Your task to perform on an android device: check the backup settings in the google photos Image 0: 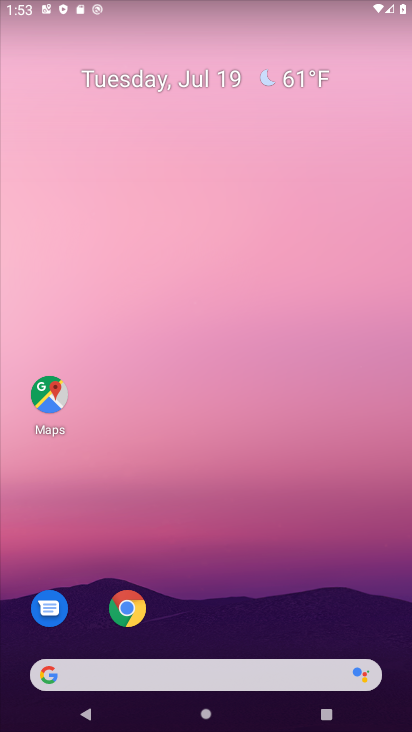
Step 0: drag from (275, 651) to (242, 88)
Your task to perform on an android device: check the backup settings in the google photos Image 1: 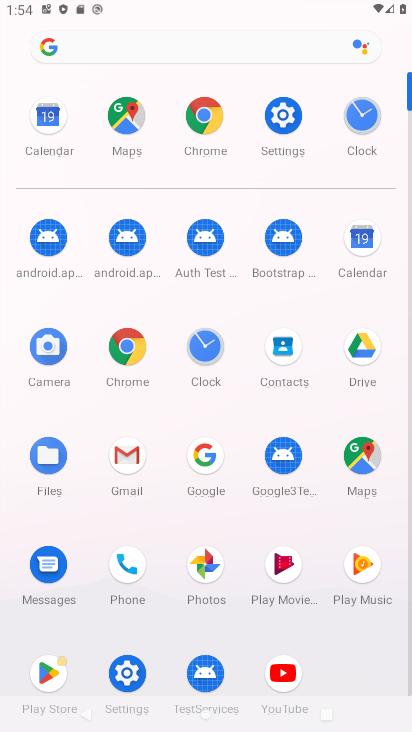
Step 1: click (208, 570)
Your task to perform on an android device: check the backup settings in the google photos Image 2: 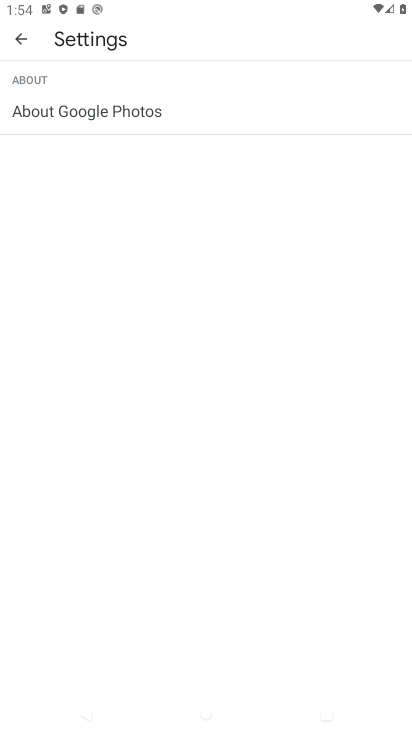
Step 2: click (18, 43)
Your task to perform on an android device: check the backup settings in the google photos Image 3: 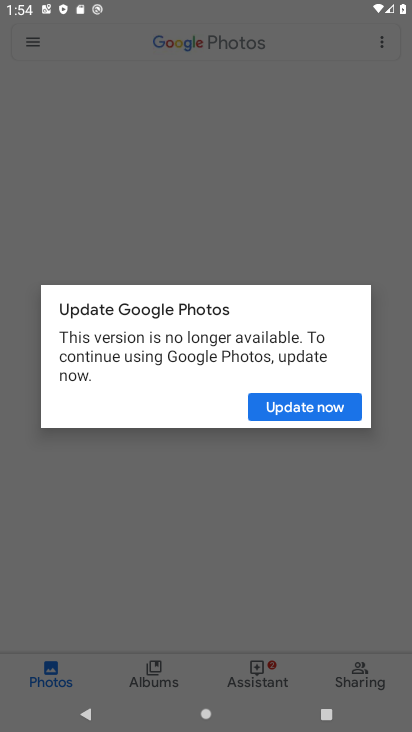
Step 3: click (305, 419)
Your task to perform on an android device: check the backup settings in the google photos Image 4: 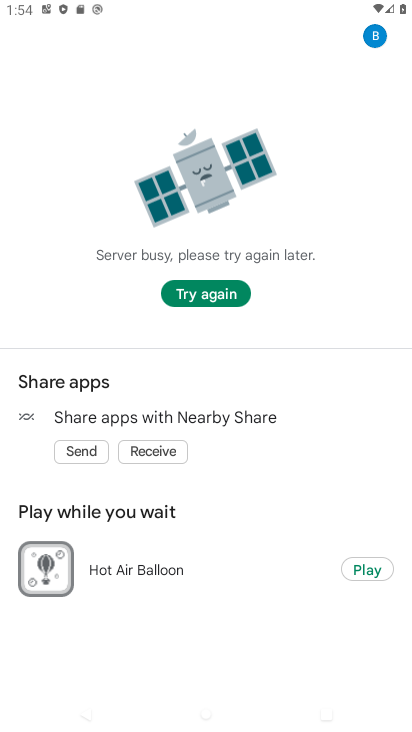
Step 4: press home button
Your task to perform on an android device: check the backup settings in the google photos Image 5: 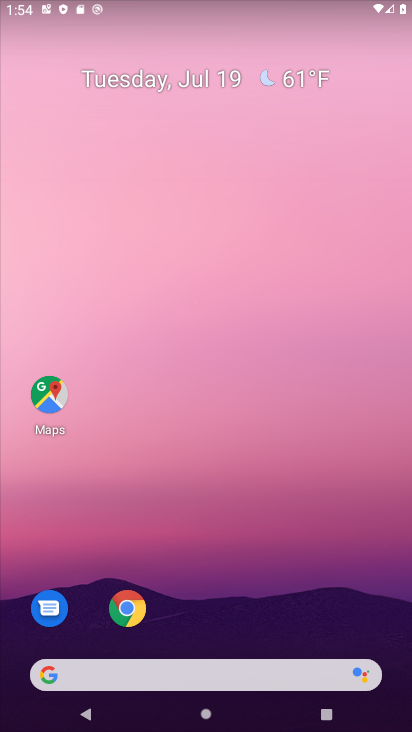
Step 5: drag from (293, 560) to (240, 22)
Your task to perform on an android device: check the backup settings in the google photos Image 6: 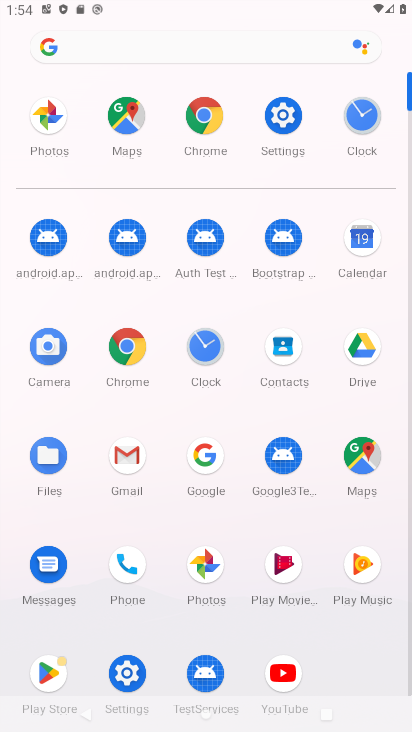
Step 6: click (208, 577)
Your task to perform on an android device: check the backup settings in the google photos Image 7: 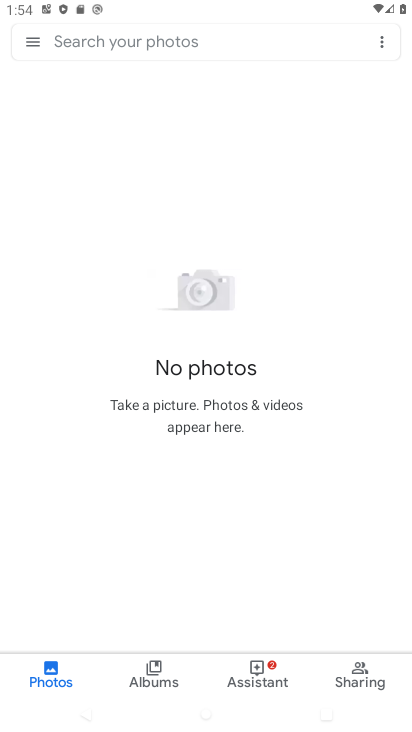
Step 7: click (30, 42)
Your task to perform on an android device: check the backup settings in the google photos Image 8: 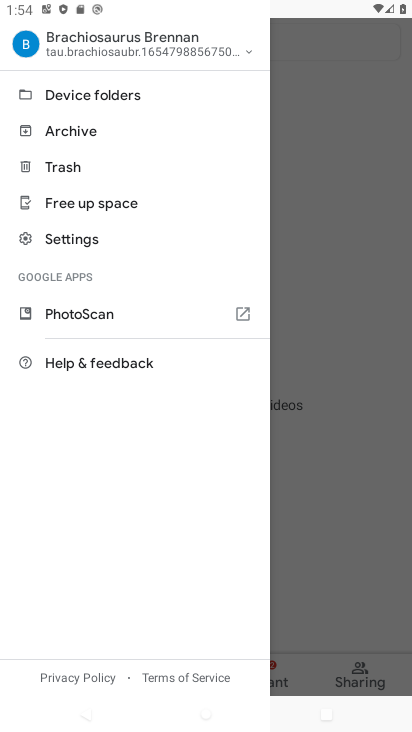
Step 8: click (61, 241)
Your task to perform on an android device: check the backup settings in the google photos Image 9: 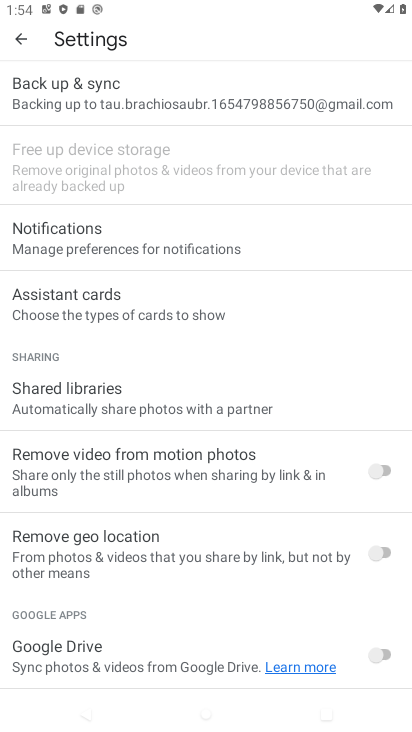
Step 9: click (60, 104)
Your task to perform on an android device: check the backup settings in the google photos Image 10: 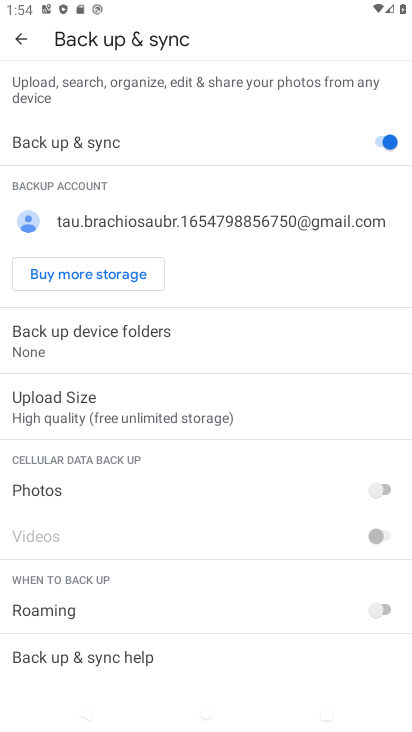
Step 10: task complete